Your task to perform on an android device: Open battery settings Image 0: 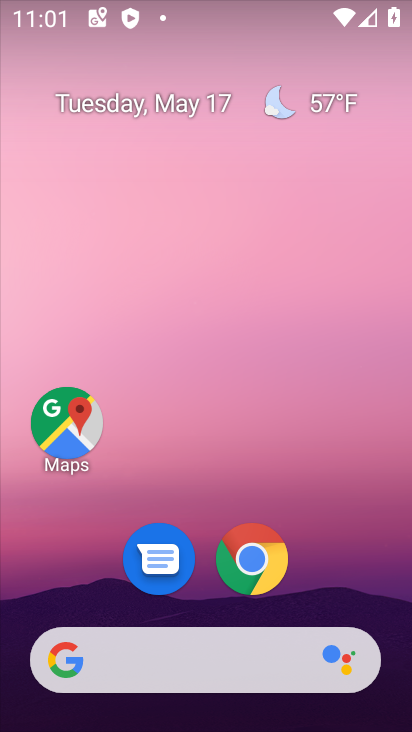
Step 0: drag from (358, 612) to (341, 6)
Your task to perform on an android device: Open battery settings Image 1: 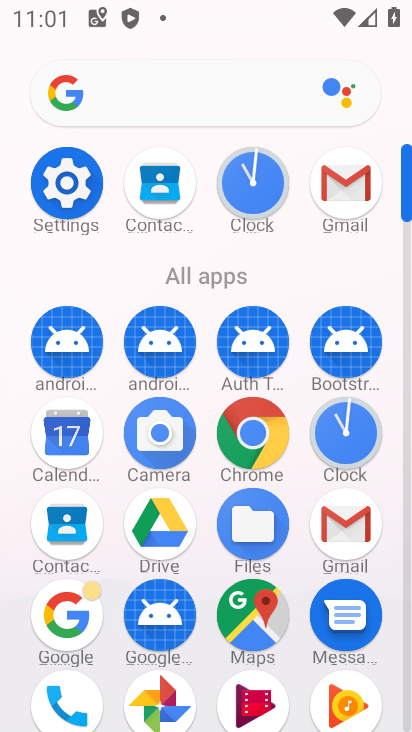
Step 1: click (63, 213)
Your task to perform on an android device: Open battery settings Image 2: 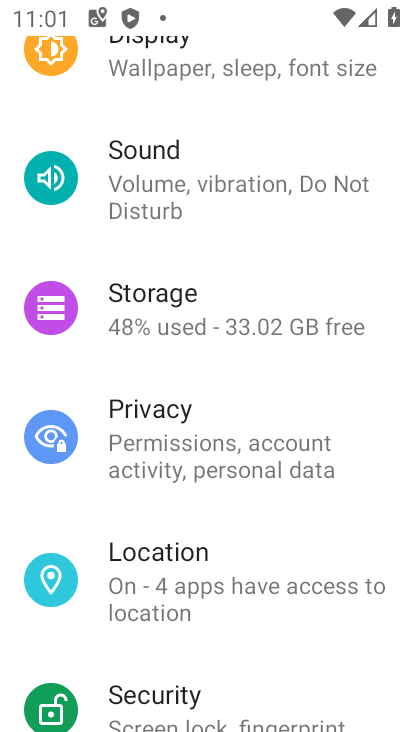
Step 2: drag from (162, 169) to (245, 642)
Your task to perform on an android device: Open battery settings Image 3: 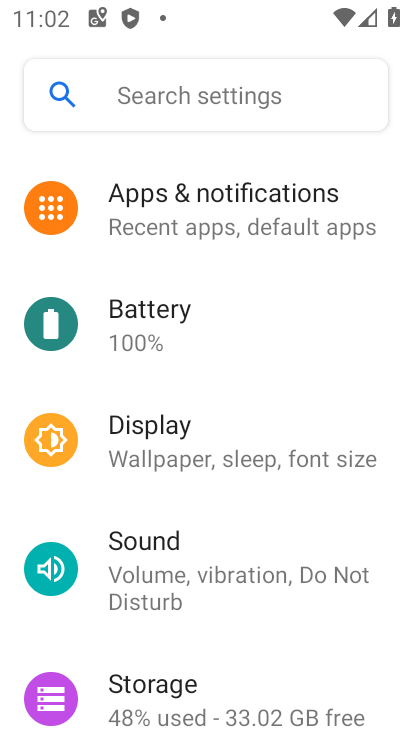
Step 3: click (205, 339)
Your task to perform on an android device: Open battery settings Image 4: 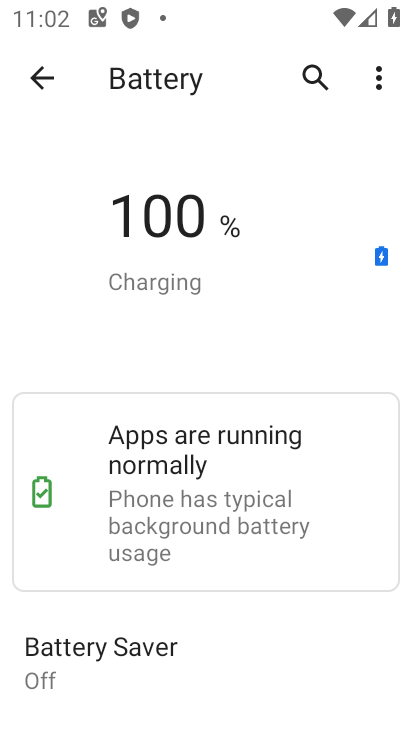
Step 4: drag from (205, 339) to (223, 299)
Your task to perform on an android device: Open battery settings Image 5: 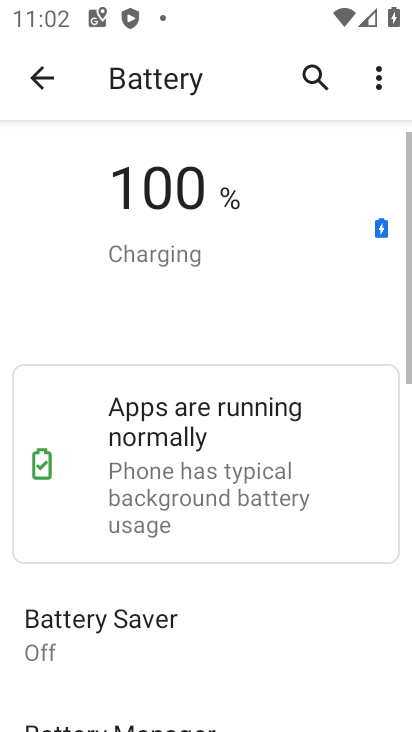
Step 5: click (224, 298)
Your task to perform on an android device: Open battery settings Image 6: 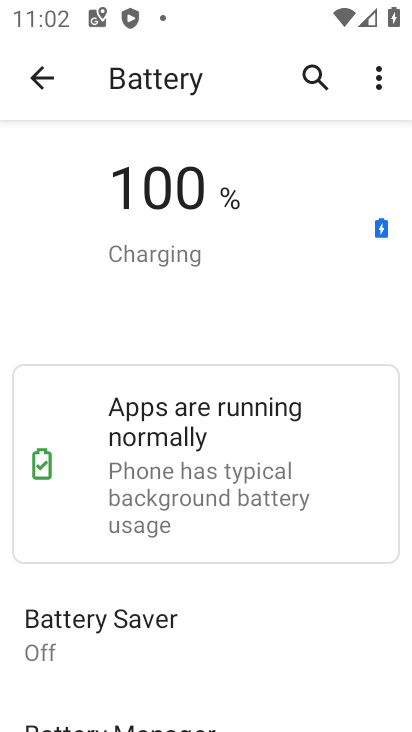
Step 6: task complete